Your task to perform on an android device: turn on showing notifications on the lock screen Image 0: 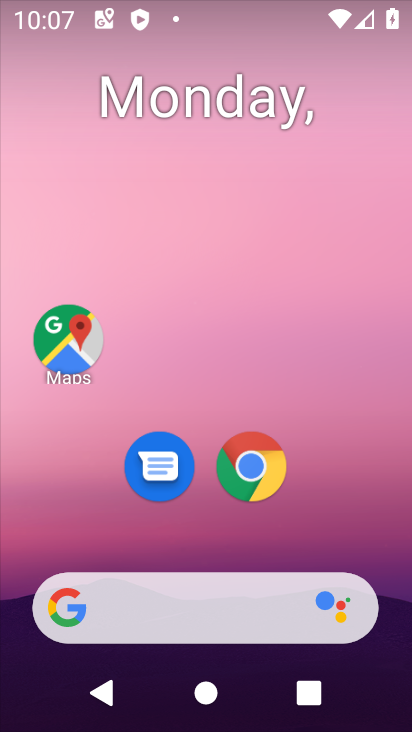
Step 0: drag from (187, 549) to (187, 183)
Your task to perform on an android device: turn on showing notifications on the lock screen Image 1: 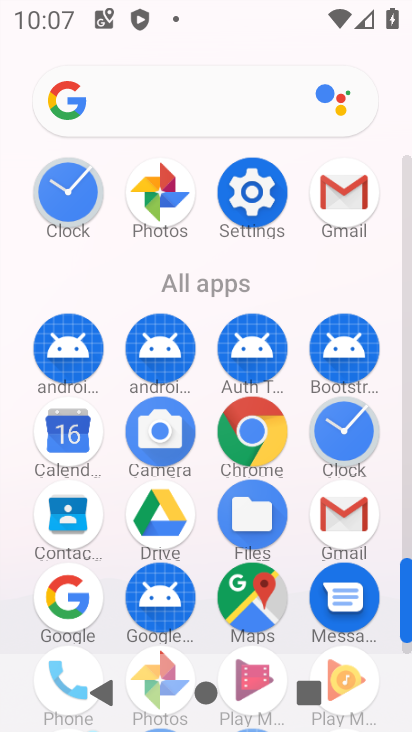
Step 1: click (251, 196)
Your task to perform on an android device: turn on showing notifications on the lock screen Image 2: 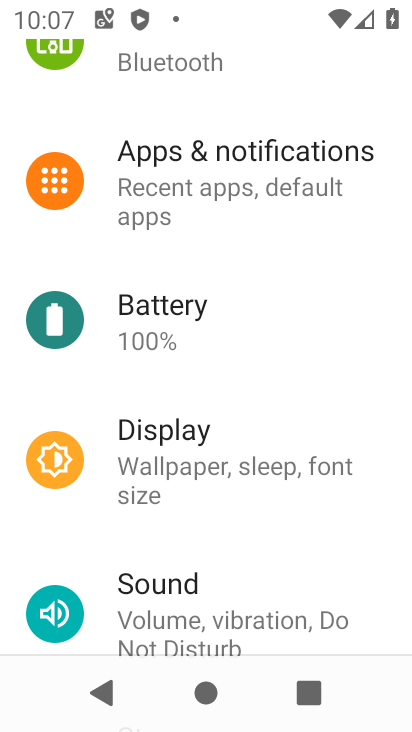
Step 2: click (259, 184)
Your task to perform on an android device: turn on showing notifications on the lock screen Image 3: 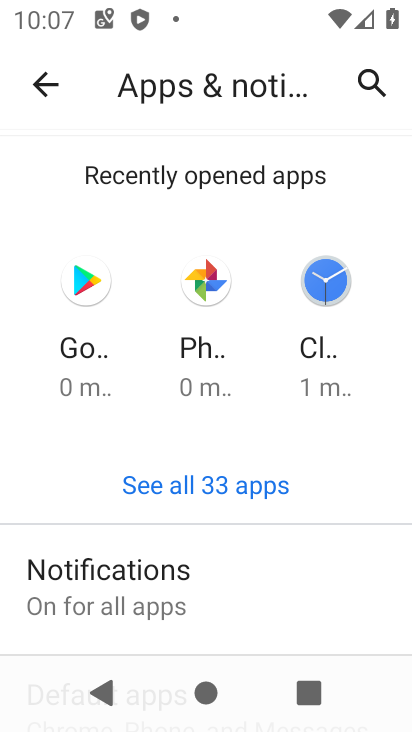
Step 3: drag from (179, 579) to (238, 291)
Your task to perform on an android device: turn on showing notifications on the lock screen Image 4: 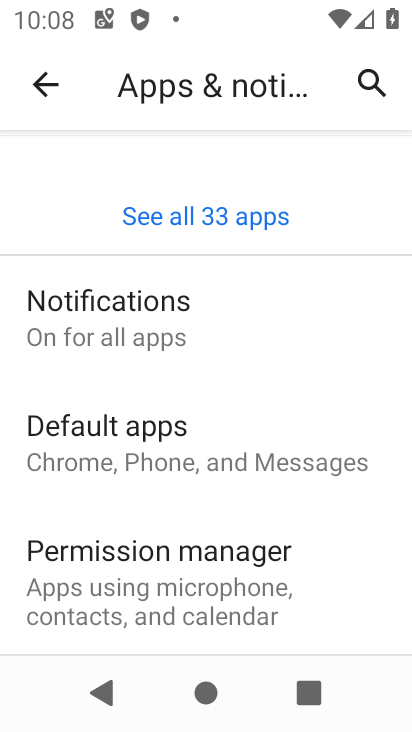
Step 4: click (146, 318)
Your task to perform on an android device: turn on showing notifications on the lock screen Image 5: 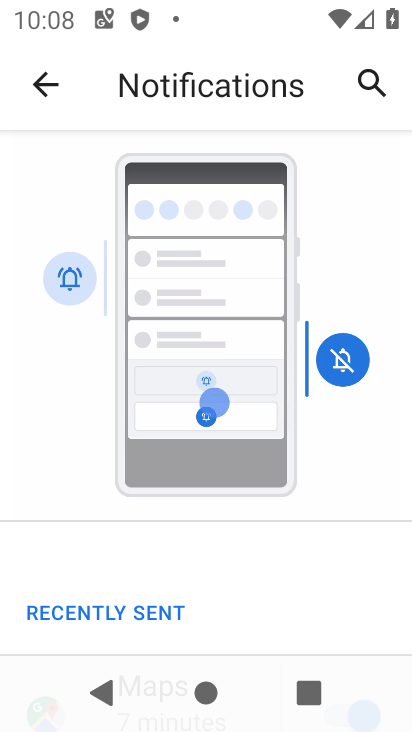
Step 5: drag from (207, 607) to (284, 201)
Your task to perform on an android device: turn on showing notifications on the lock screen Image 6: 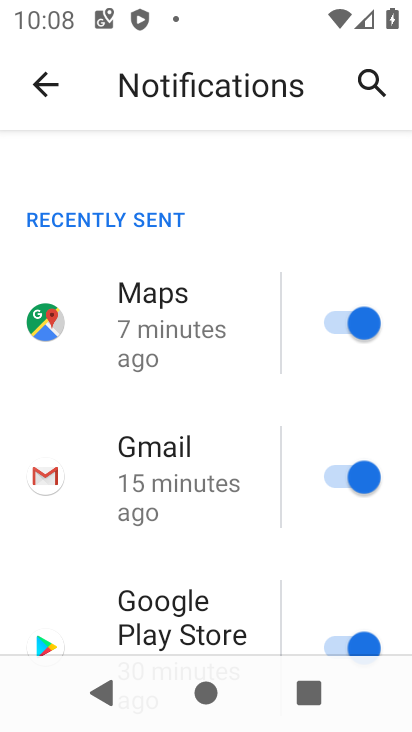
Step 6: drag from (170, 564) to (246, 218)
Your task to perform on an android device: turn on showing notifications on the lock screen Image 7: 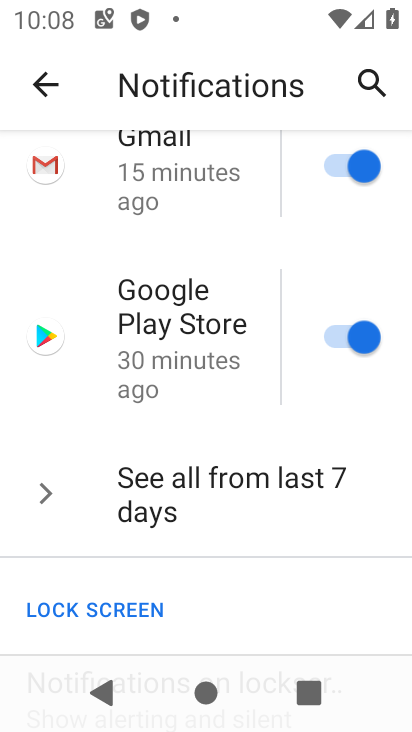
Step 7: drag from (241, 587) to (310, 235)
Your task to perform on an android device: turn on showing notifications on the lock screen Image 8: 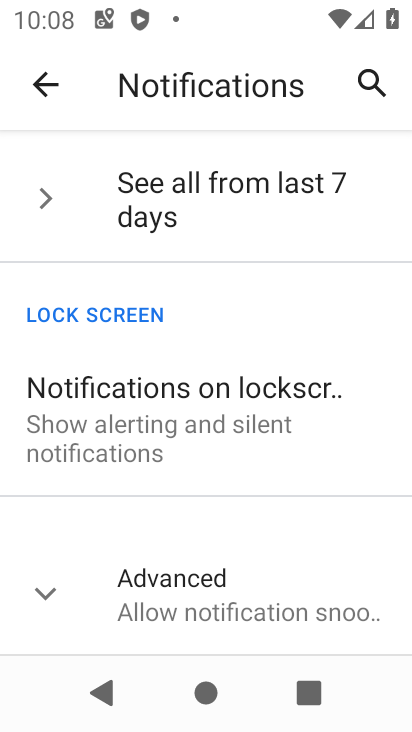
Step 8: click (158, 442)
Your task to perform on an android device: turn on showing notifications on the lock screen Image 9: 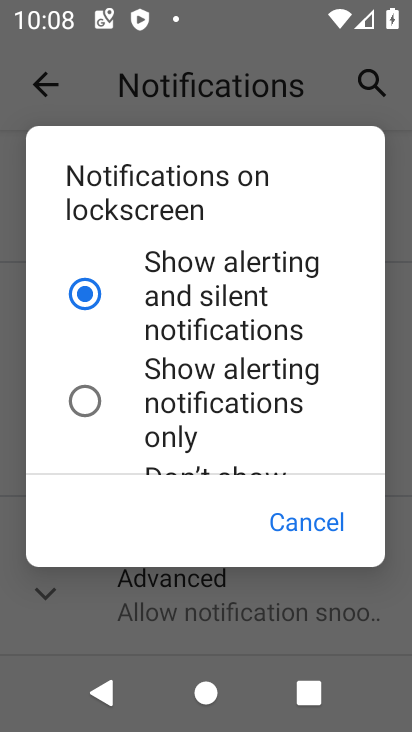
Step 9: task complete